Your task to perform on an android device: Open Google Maps and go to "Timeline" Image 0: 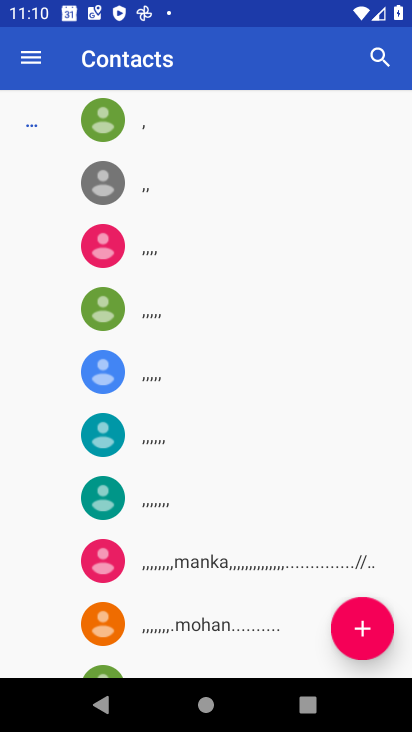
Step 0: press home button
Your task to perform on an android device: Open Google Maps and go to "Timeline" Image 1: 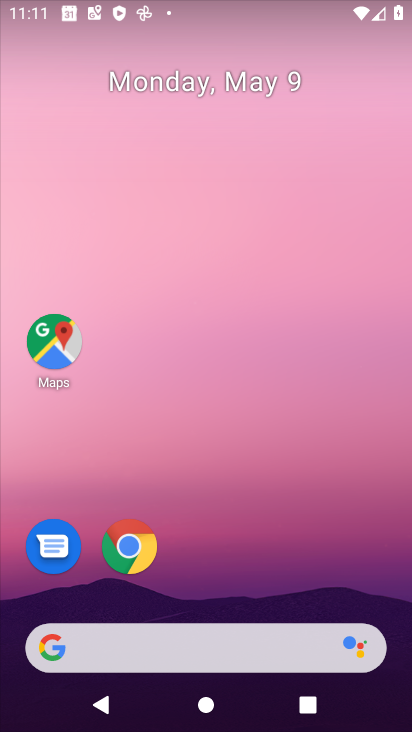
Step 1: click (62, 346)
Your task to perform on an android device: Open Google Maps and go to "Timeline" Image 2: 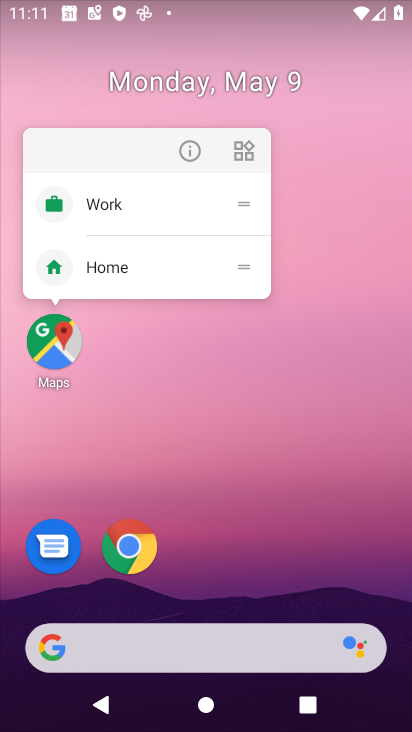
Step 2: click (53, 337)
Your task to perform on an android device: Open Google Maps and go to "Timeline" Image 3: 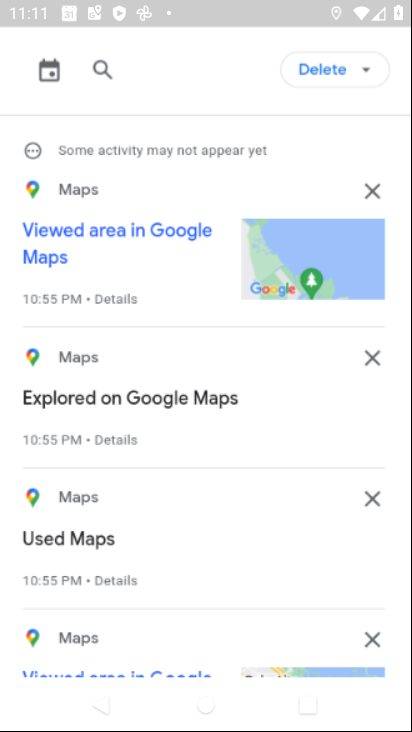
Step 3: click (53, 337)
Your task to perform on an android device: Open Google Maps and go to "Timeline" Image 4: 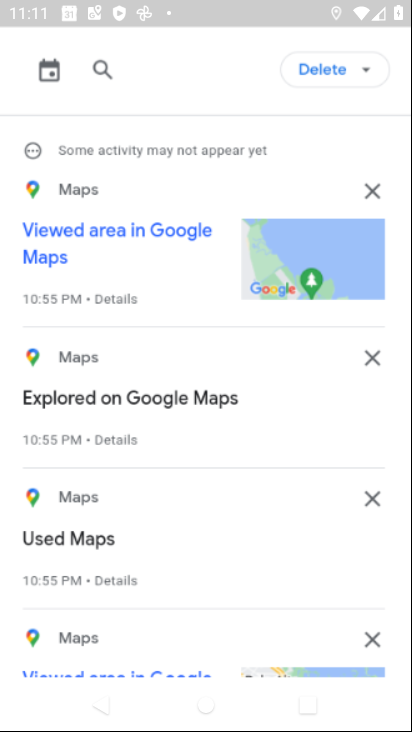
Step 4: click (53, 337)
Your task to perform on an android device: Open Google Maps and go to "Timeline" Image 5: 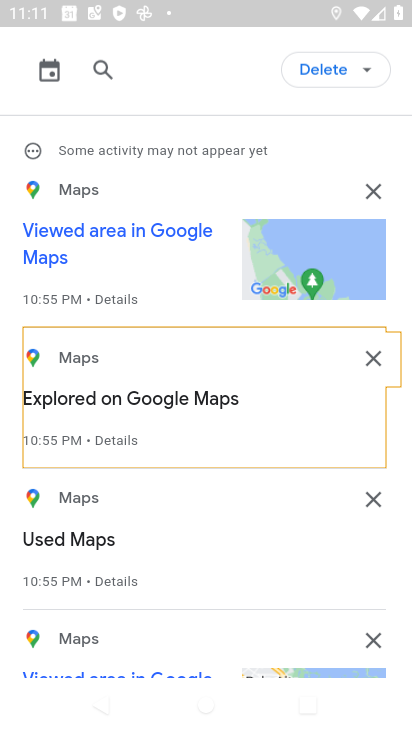
Step 5: press back button
Your task to perform on an android device: Open Google Maps and go to "Timeline" Image 6: 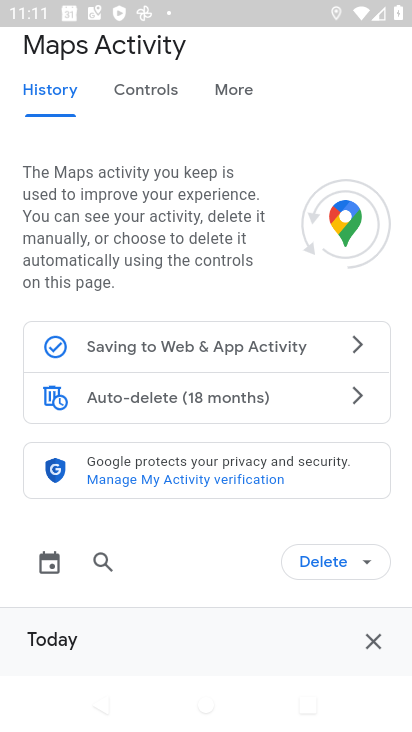
Step 6: press back button
Your task to perform on an android device: Open Google Maps and go to "Timeline" Image 7: 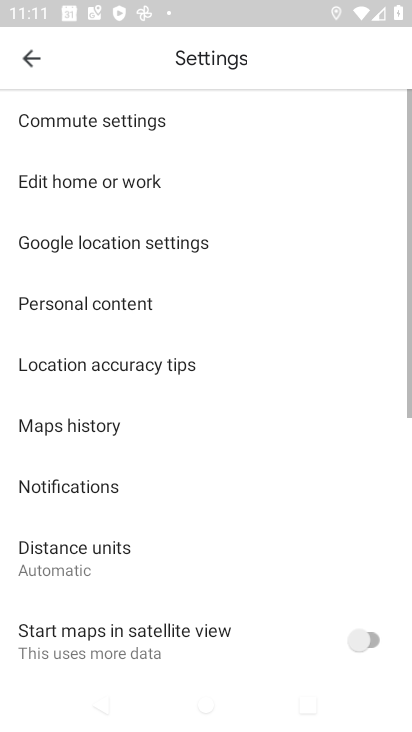
Step 7: press back button
Your task to perform on an android device: Open Google Maps and go to "Timeline" Image 8: 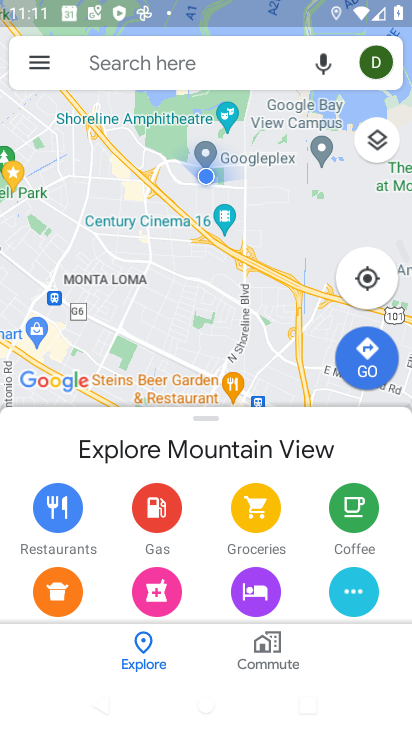
Step 8: click (39, 65)
Your task to perform on an android device: Open Google Maps and go to "Timeline" Image 9: 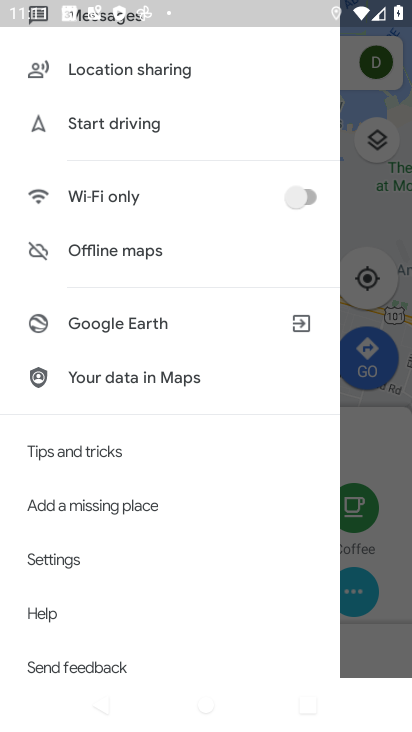
Step 9: drag from (226, 98) to (122, 721)
Your task to perform on an android device: Open Google Maps and go to "Timeline" Image 10: 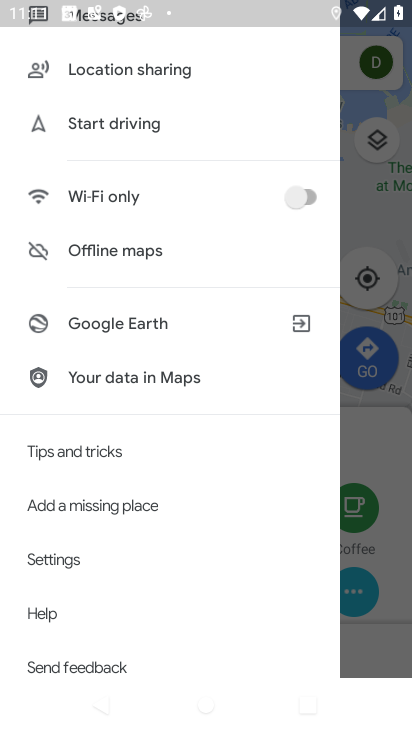
Step 10: drag from (170, 95) to (198, 719)
Your task to perform on an android device: Open Google Maps and go to "Timeline" Image 11: 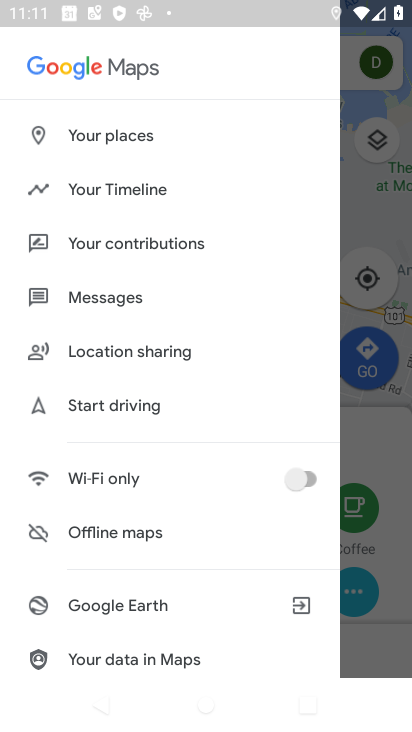
Step 11: click (159, 184)
Your task to perform on an android device: Open Google Maps and go to "Timeline" Image 12: 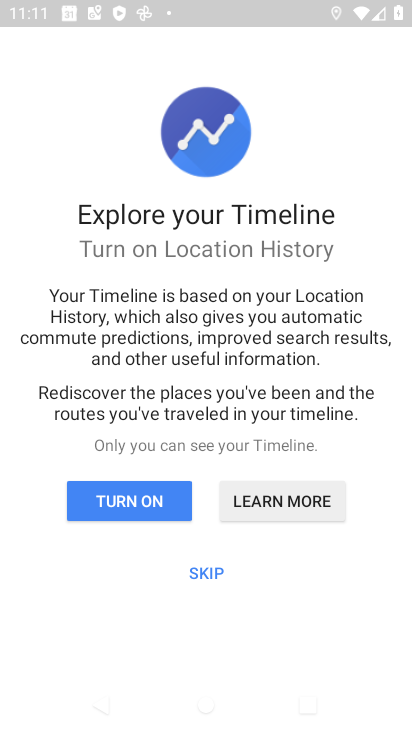
Step 12: click (206, 578)
Your task to perform on an android device: Open Google Maps and go to "Timeline" Image 13: 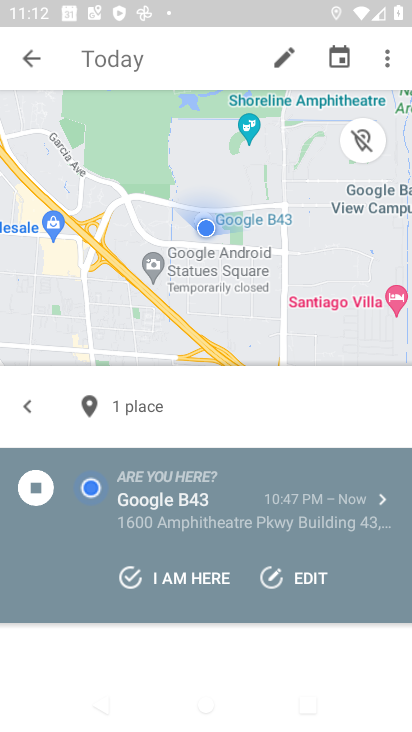
Step 13: task complete